Your task to perform on an android device: Open Google Maps and go to "Timeline" Image 0: 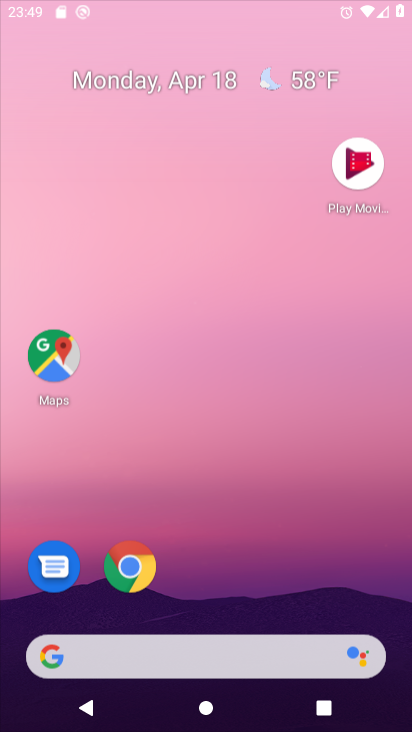
Step 0: click (163, 142)
Your task to perform on an android device: Open Google Maps and go to "Timeline" Image 1: 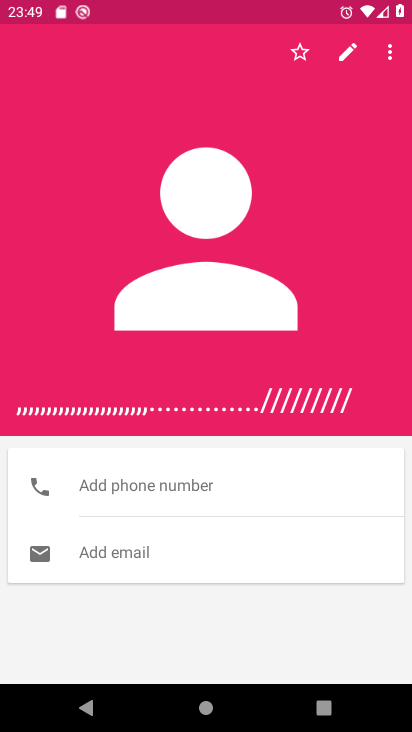
Step 1: press home button
Your task to perform on an android device: Open Google Maps and go to "Timeline" Image 2: 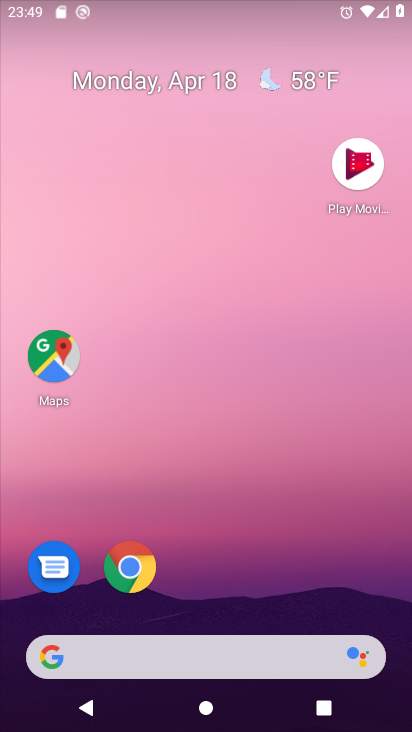
Step 2: drag from (197, 589) to (230, 138)
Your task to perform on an android device: Open Google Maps and go to "Timeline" Image 3: 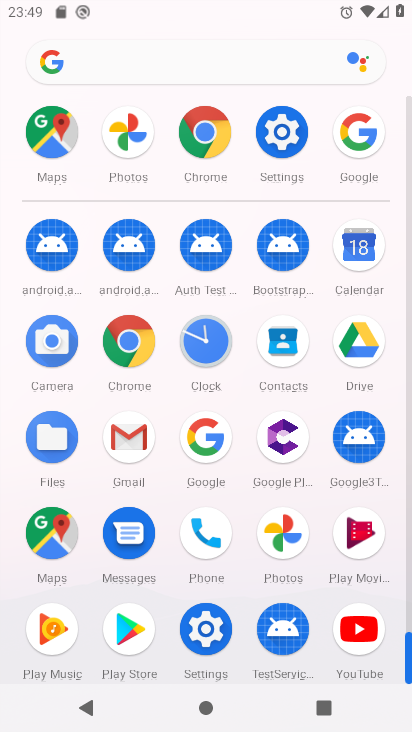
Step 3: click (55, 542)
Your task to perform on an android device: Open Google Maps and go to "Timeline" Image 4: 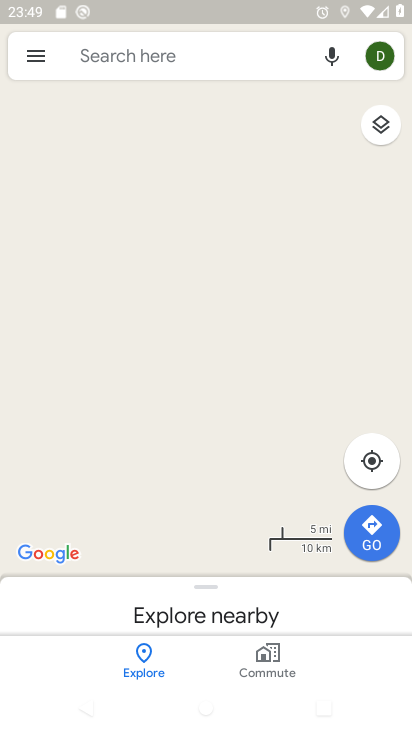
Step 4: click (29, 57)
Your task to perform on an android device: Open Google Maps and go to "Timeline" Image 5: 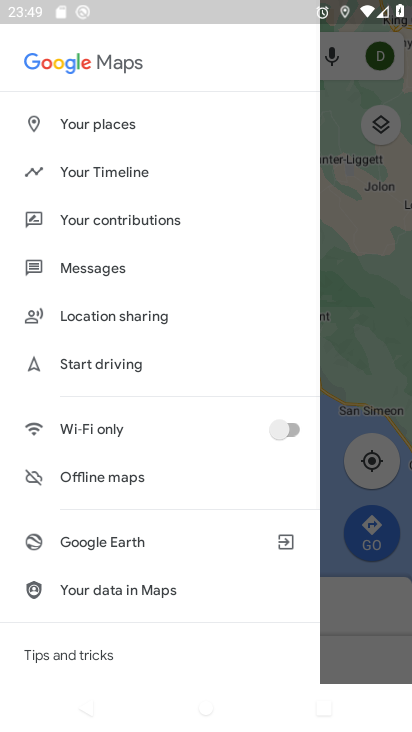
Step 5: click (155, 181)
Your task to perform on an android device: Open Google Maps and go to "Timeline" Image 6: 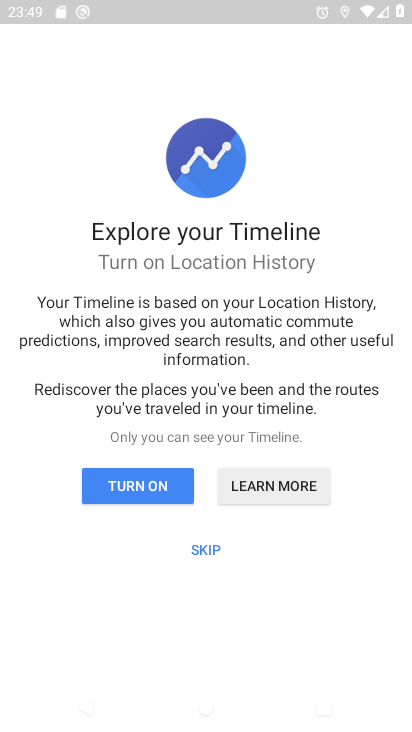
Step 6: click (209, 543)
Your task to perform on an android device: Open Google Maps and go to "Timeline" Image 7: 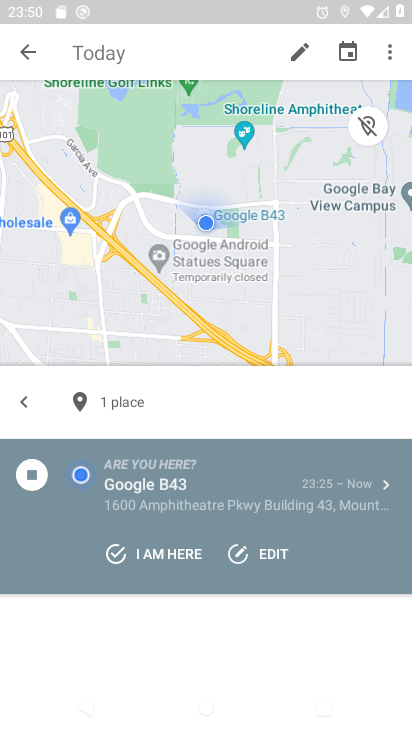
Step 7: task complete